Your task to perform on an android device: Open privacy settings Image 0: 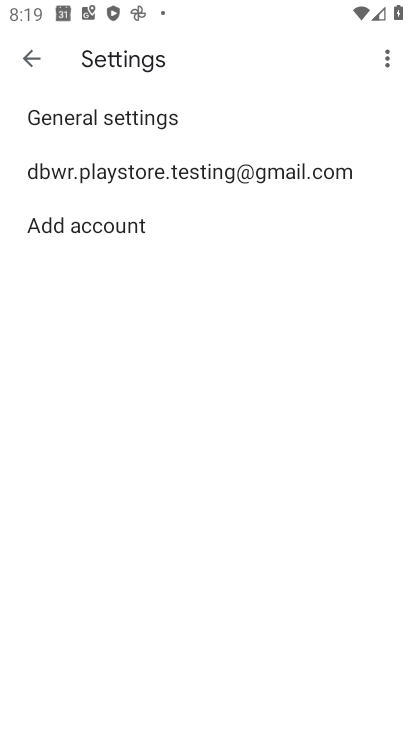
Step 0: press home button
Your task to perform on an android device: Open privacy settings Image 1: 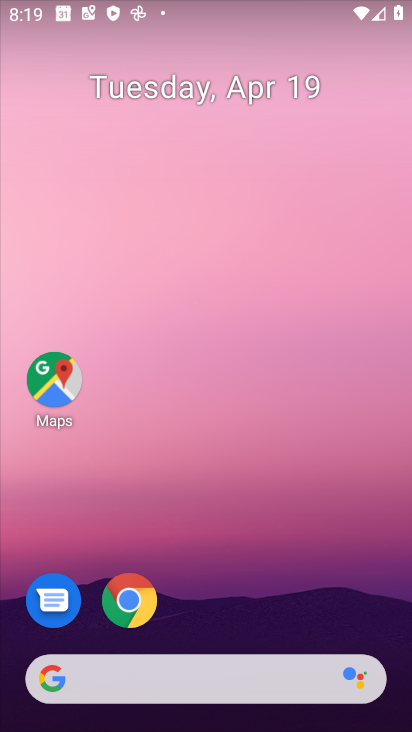
Step 1: drag from (350, 637) to (294, 87)
Your task to perform on an android device: Open privacy settings Image 2: 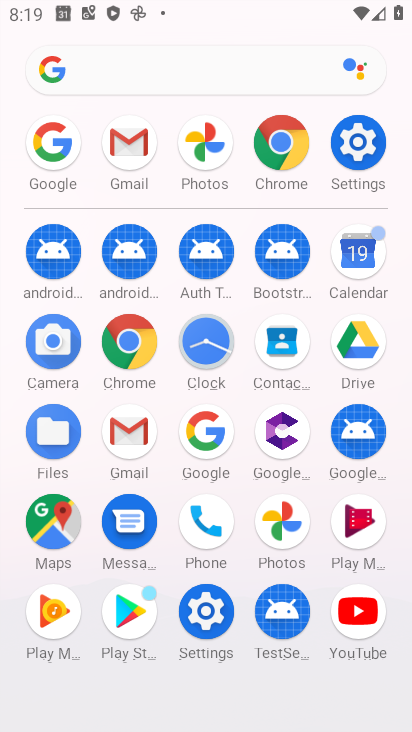
Step 2: click (359, 138)
Your task to perform on an android device: Open privacy settings Image 3: 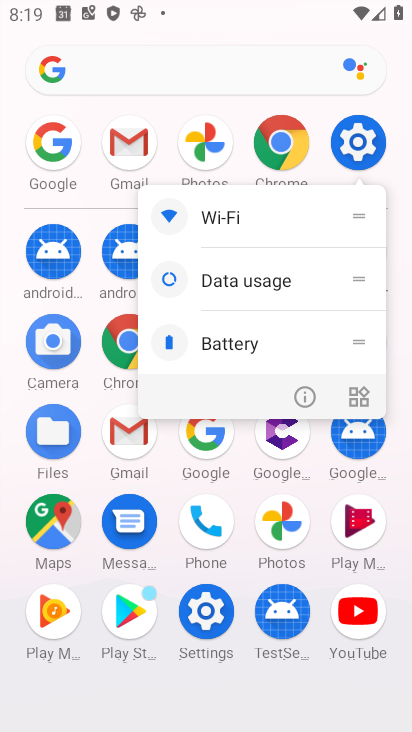
Step 3: click (359, 138)
Your task to perform on an android device: Open privacy settings Image 4: 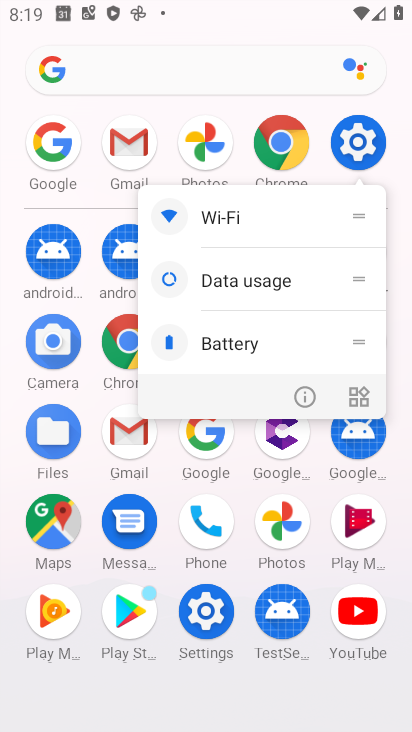
Step 4: click (359, 138)
Your task to perform on an android device: Open privacy settings Image 5: 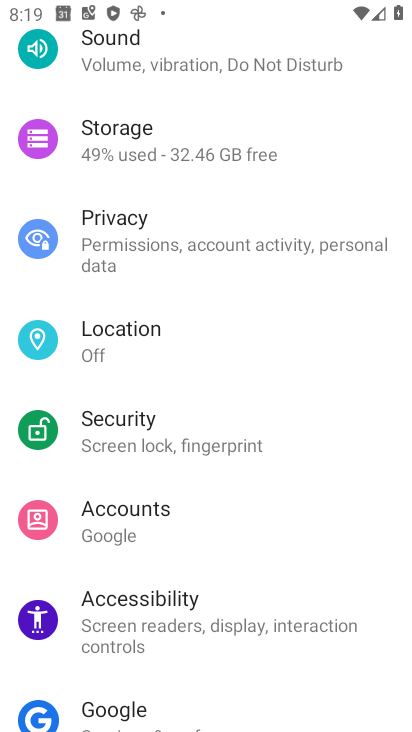
Step 5: click (167, 251)
Your task to perform on an android device: Open privacy settings Image 6: 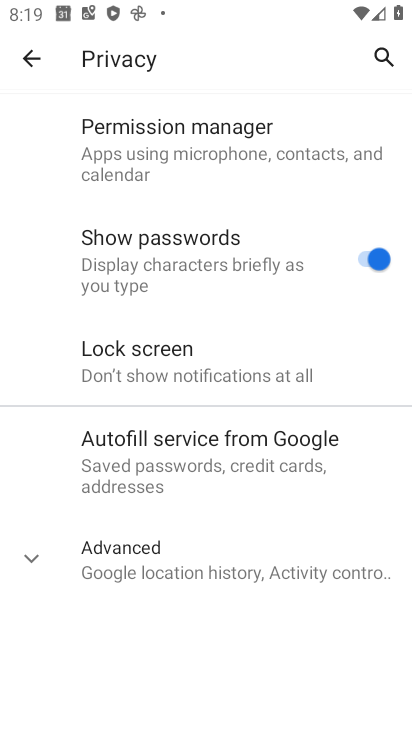
Step 6: task complete